Your task to perform on an android device: open the mobile data screen to see how much data has been used Image 0: 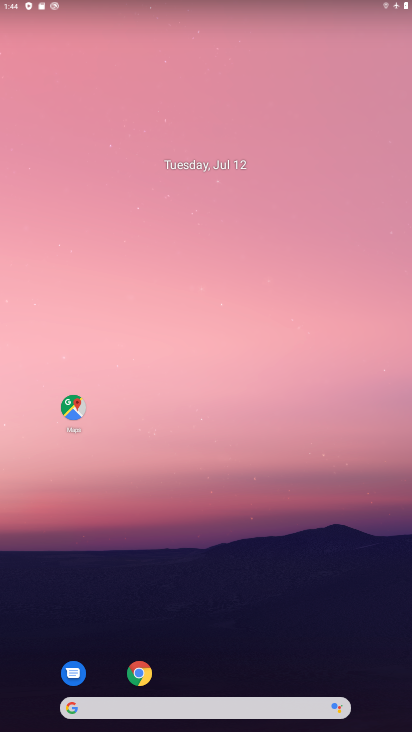
Step 0: drag from (232, 524) to (144, 680)
Your task to perform on an android device: open the mobile data screen to see how much data has been used Image 1: 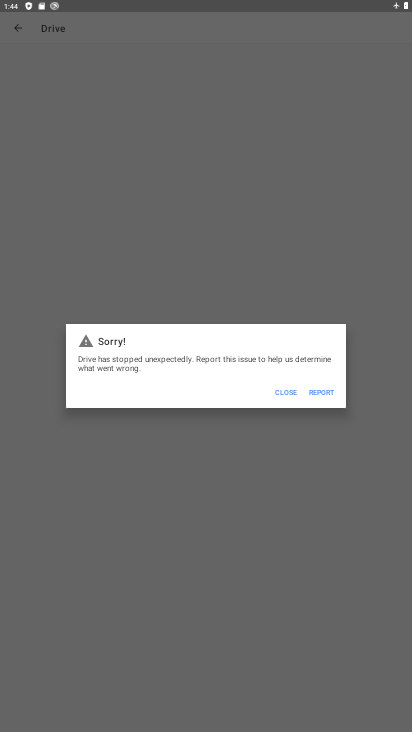
Step 1: press home button
Your task to perform on an android device: open the mobile data screen to see how much data has been used Image 2: 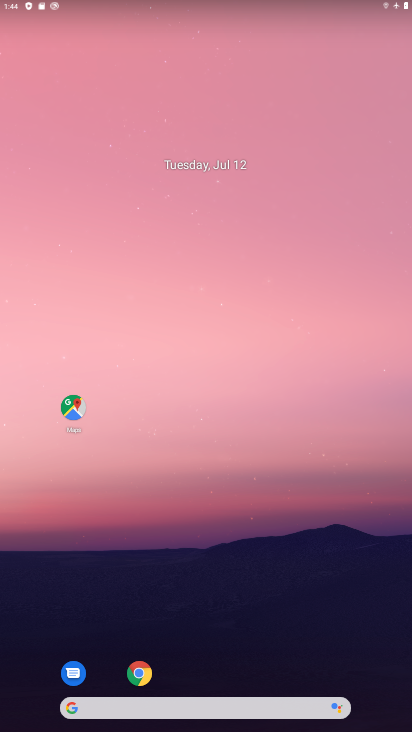
Step 2: drag from (189, 596) to (217, 121)
Your task to perform on an android device: open the mobile data screen to see how much data has been used Image 3: 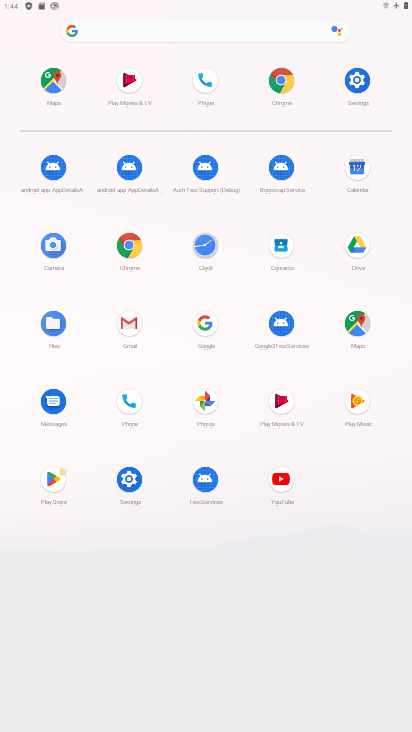
Step 3: click (350, 79)
Your task to perform on an android device: open the mobile data screen to see how much data has been used Image 4: 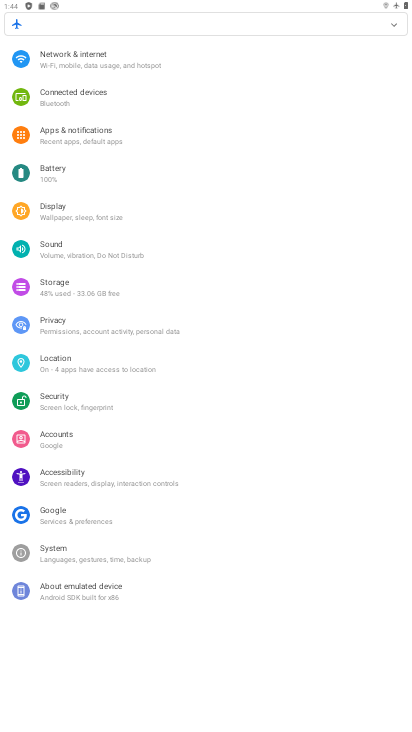
Step 4: click (68, 63)
Your task to perform on an android device: open the mobile data screen to see how much data has been used Image 5: 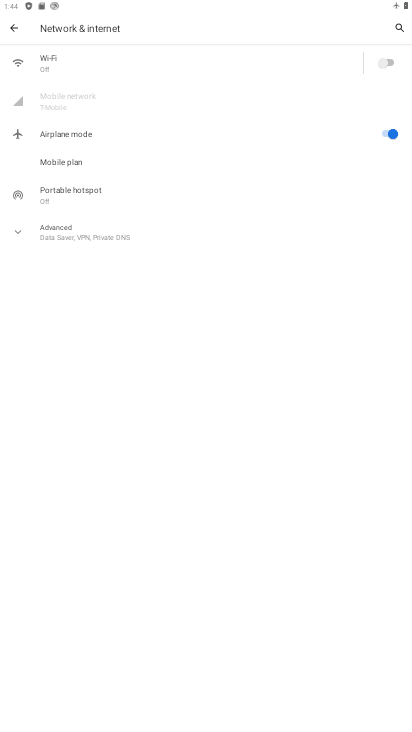
Step 5: click (56, 89)
Your task to perform on an android device: open the mobile data screen to see how much data has been used Image 6: 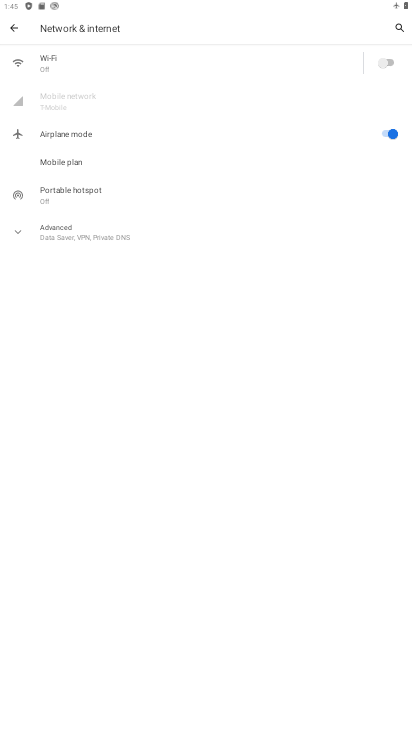
Step 6: task complete